Your task to perform on an android device: Go to internet settings Image 0: 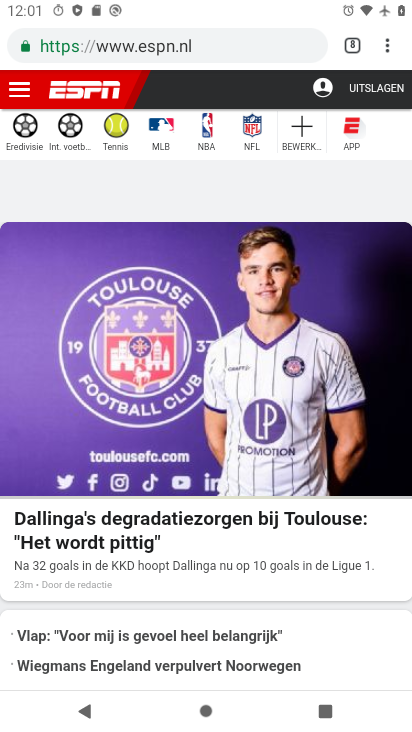
Step 0: press home button
Your task to perform on an android device: Go to internet settings Image 1: 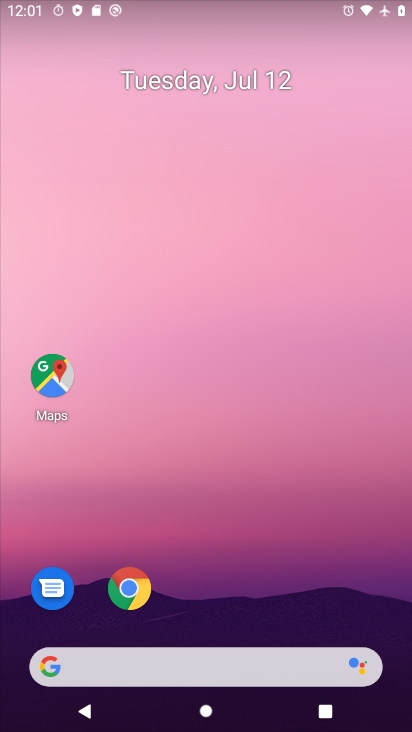
Step 1: drag from (141, 642) to (261, 71)
Your task to perform on an android device: Go to internet settings Image 2: 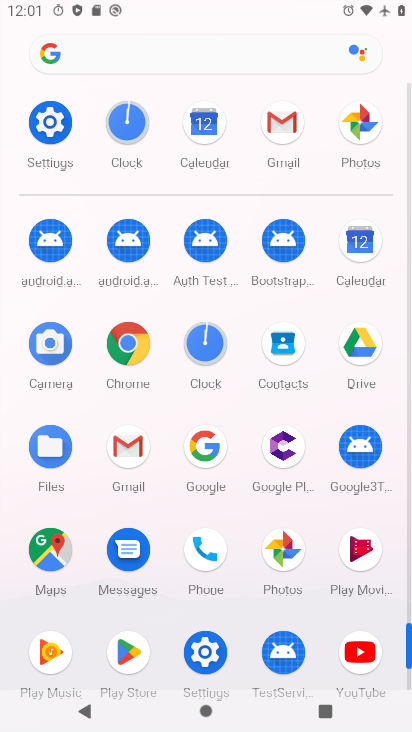
Step 2: click (55, 129)
Your task to perform on an android device: Go to internet settings Image 3: 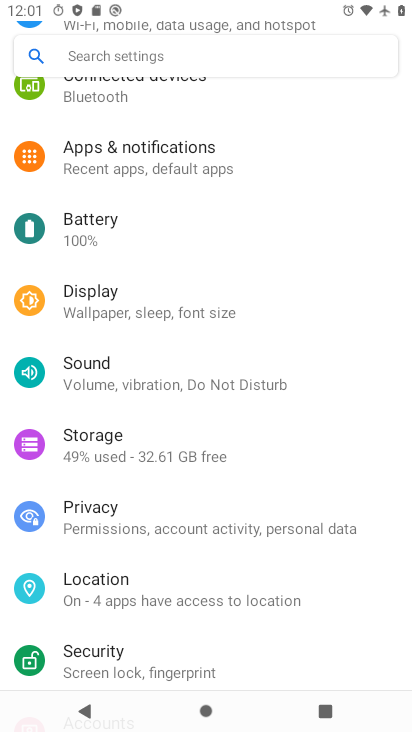
Step 3: drag from (220, 155) to (114, 613)
Your task to perform on an android device: Go to internet settings Image 4: 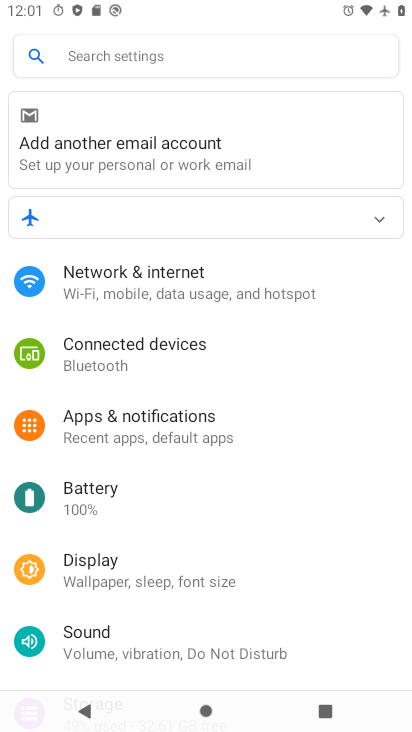
Step 4: click (124, 283)
Your task to perform on an android device: Go to internet settings Image 5: 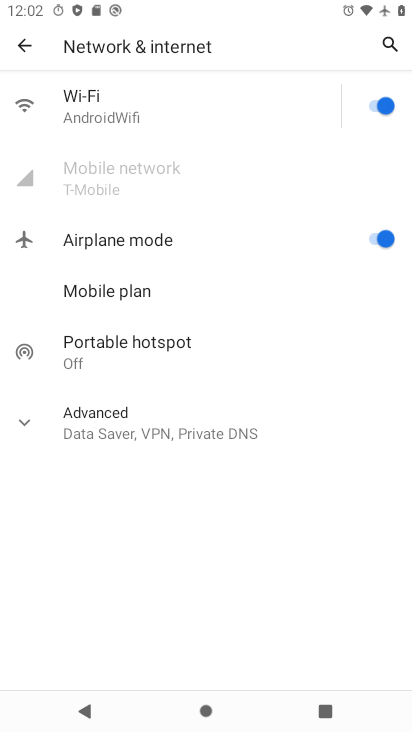
Step 5: task complete